Your task to perform on an android device: allow cookies in the chrome app Image 0: 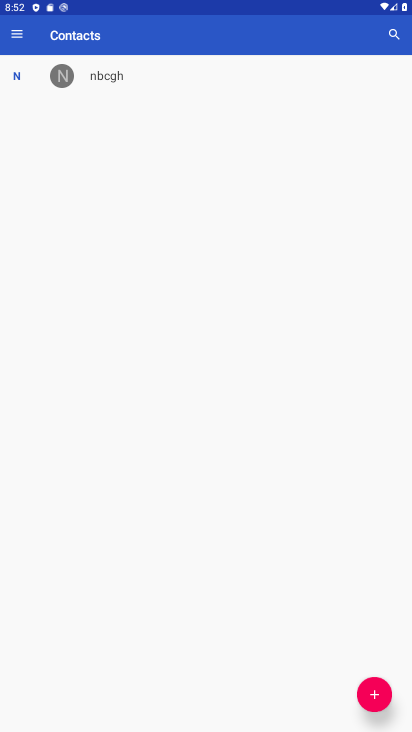
Step 0: press home button
Your task to perform on an android device: allow cookies in the chrome app Image 1: 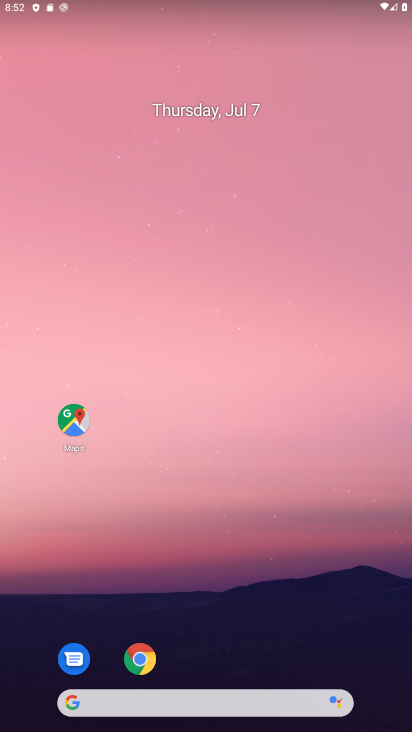
Step 1: click (146, 659)
Your task to perform on an android device: allow cookies in the chrome app Image 2: 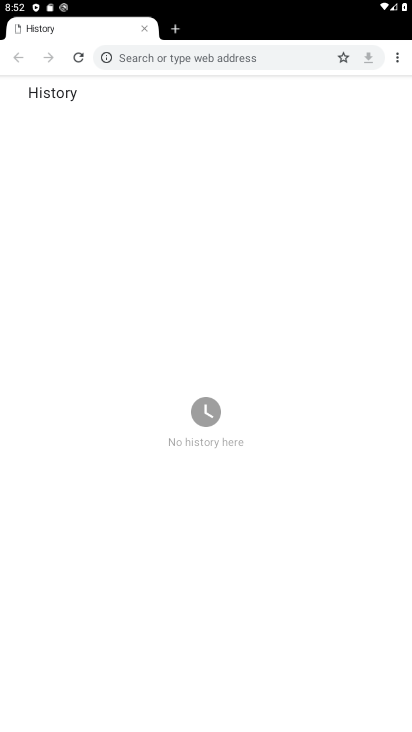
Step 2: click (400, 56)
Your task to perform on an android device: allow cookies in the chrome app Image 3: 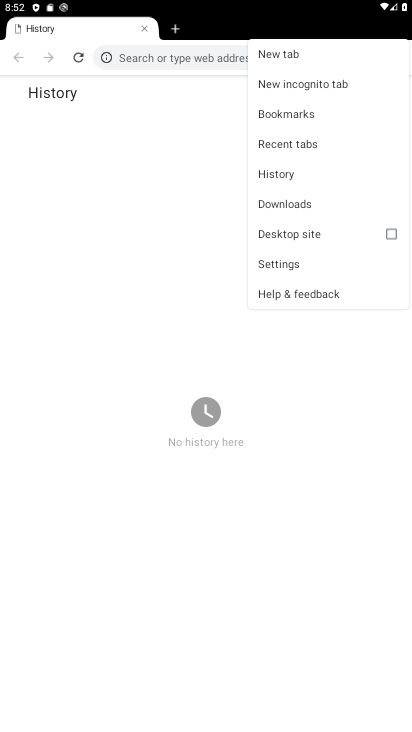
Step 3: click (289, 264)
Your task to perform on an android device: allow cookies in the chrome app Image 4: 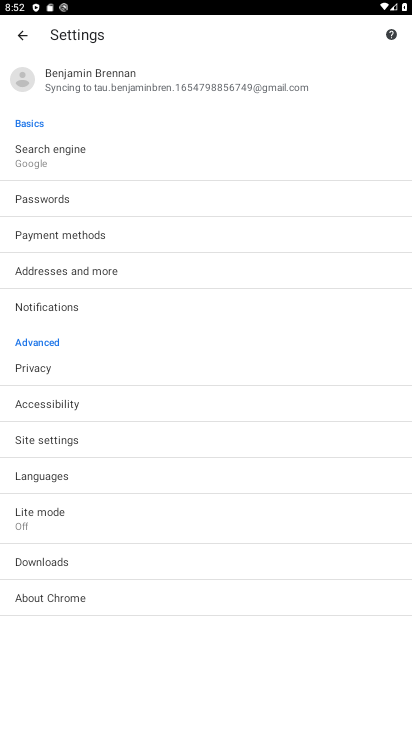
Step 4: click (62, 443)
Your task to perform on an android device: allow cookies in the chrome app Image 5: 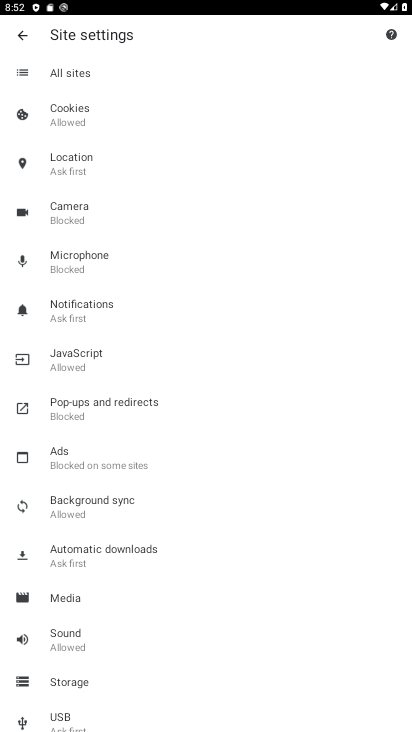
Step 5: click (97, 115)
Your task to perform on an android device: allow cookies in the chrome app Image 6: 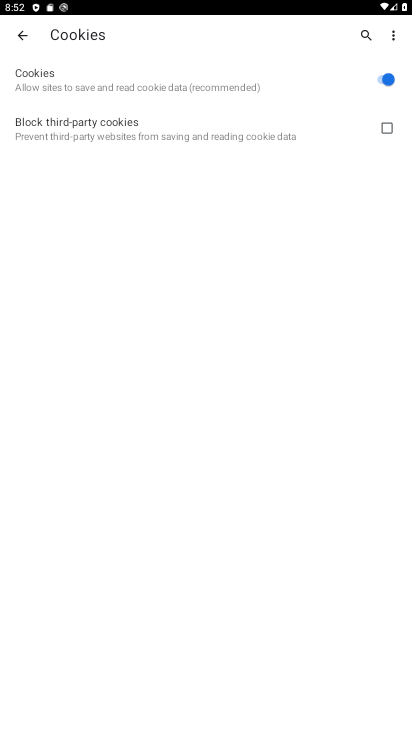
Step 6: task complete